Your task to perform on an android device: Open Youtube and go to the subscriptions tab Image 0: 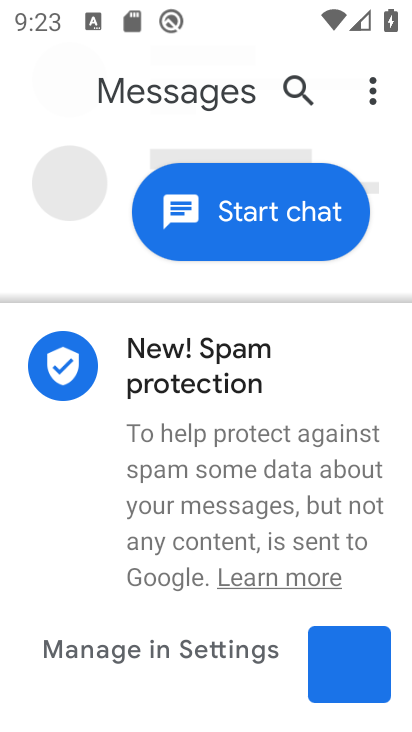
Step 0: press home button
Your task to perform on an android device: Open Youtube and go to the subscriptions tab Image 1: 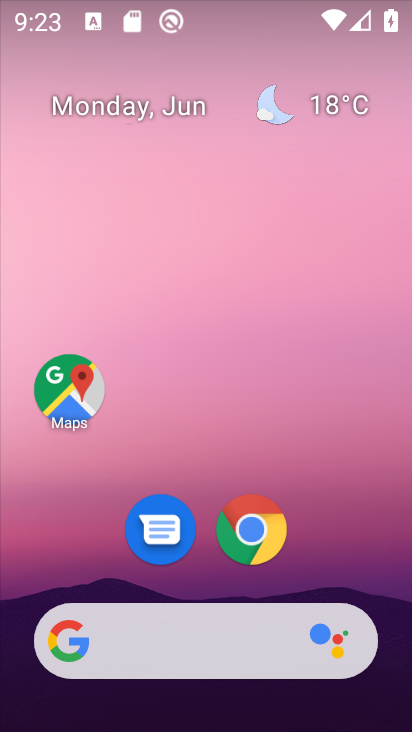
Step 1: drag from (337, 514) to (293, 25)
Your task to perform on an android device: Open Youtube and go to the subscriptions tab Image 2: 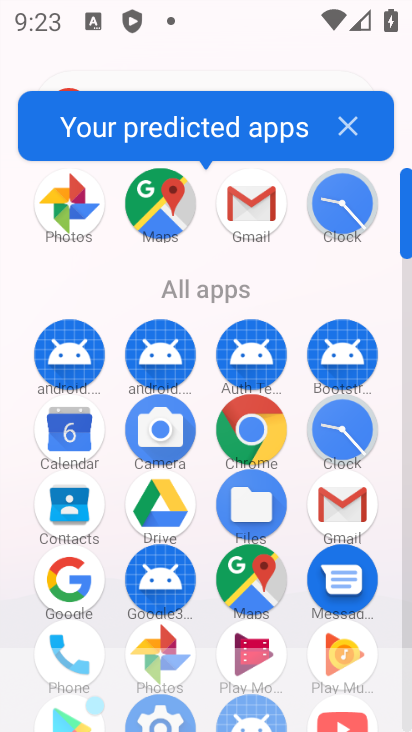
Step 2: click (405, 438)
Your task to perform on an android device: Open Youtube and go to the subscriptions tab Image 3: 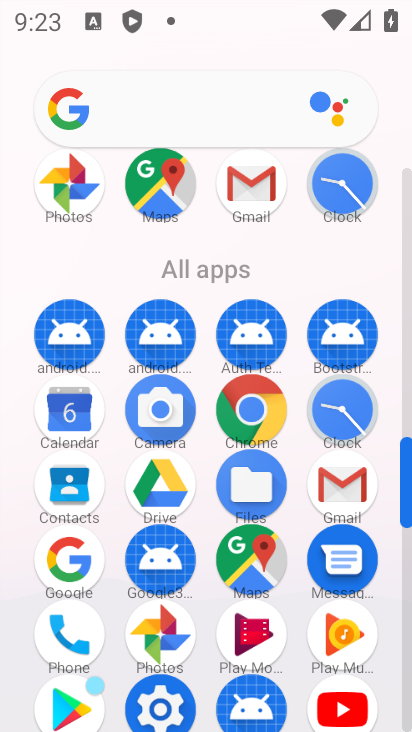
Step 3: click (401, 624)
Your task to perform on an android device: Open Youtube and go to the subscriptions tab Image 4: 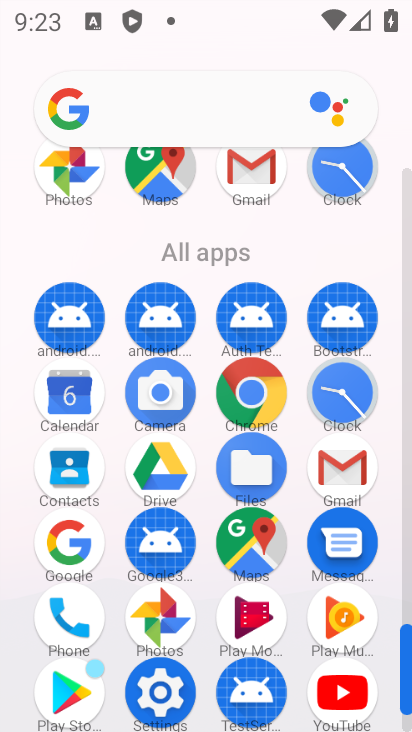
Step 4: click (330, 694)
Your task to perform on an android device: Open Youtube and go to the subscriptions tab Image 5: 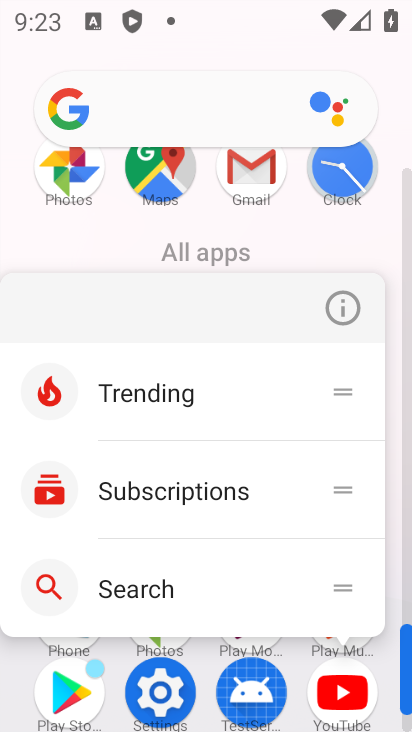
Step 5: click (331, 711)
Your task to perform on an android device: Open Youtube and go to the subscriptions tab Image 6: 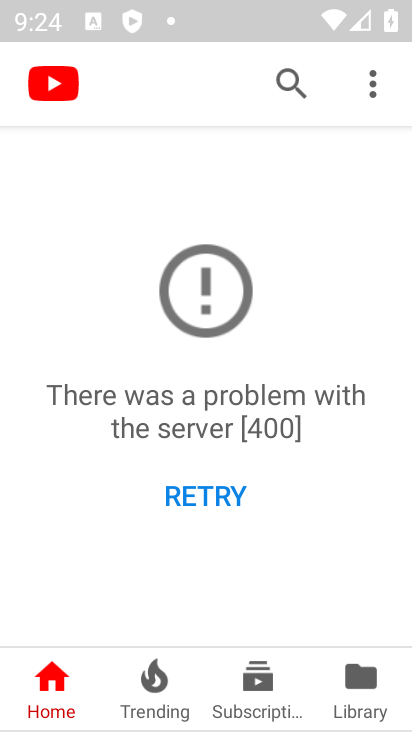
Step 6: click (260, 647)
Your task to perform on an android device: Open Youtube and go to the subscriptions tab Image 7: 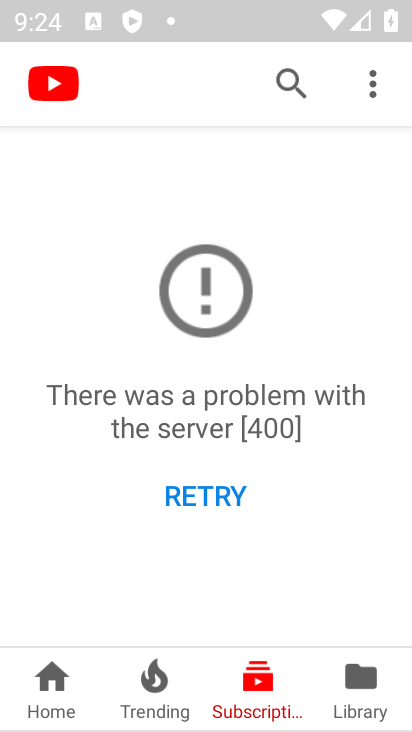
Step 7: click (220, 475)
Your task to perform on an android device: Open Youtube and go to the subscriptions tab Image 8: 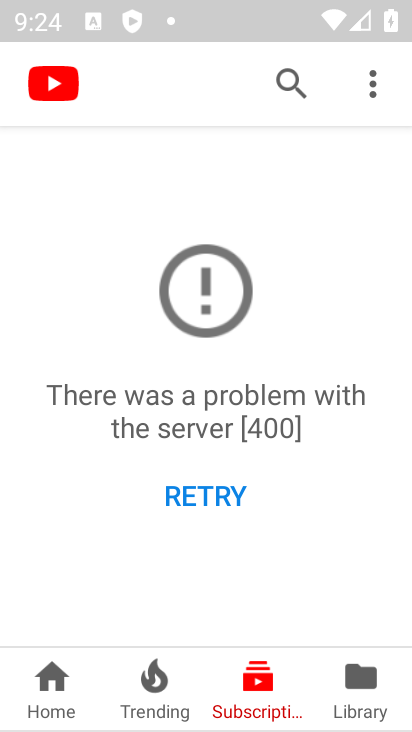
Step 8: task complete